Your task to perform on an android device: turn on airplane mode Image 0: 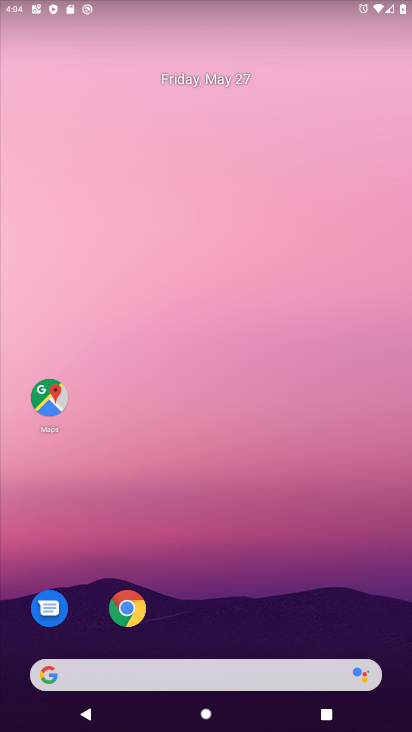
Step 0: press home button
Your task to perform on an android device: turn on airplane mode Image 1: 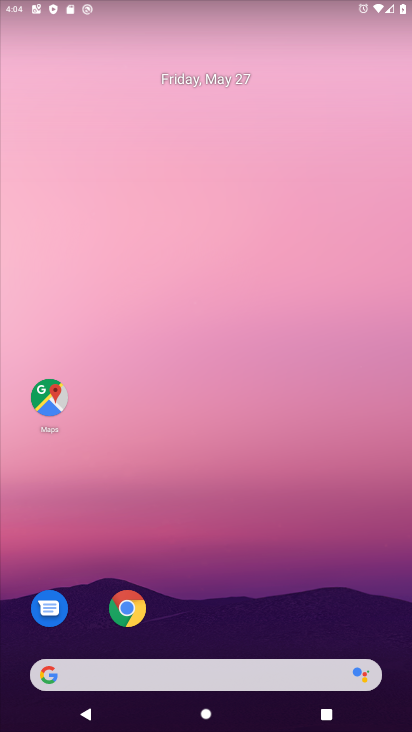
Step 1: drag from (216, 646) to (220, 242)
Your task to perform on an android device: turn on airplane mode Image 2: 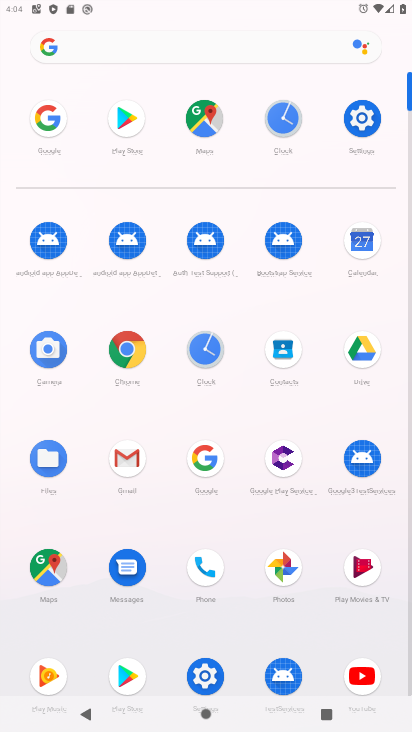
Step 2: click (359, 130)
Your task to perform on an android device: turn on airplane mode Image 3: 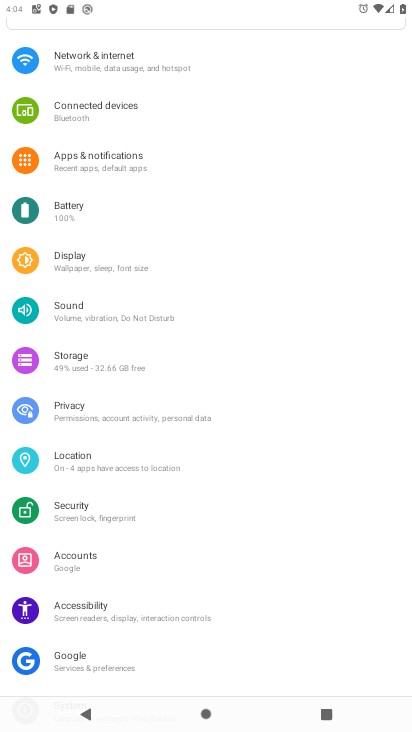
Step 3: click (129, 57)
Your task to perform on an android device: turn on airplane mode Image 4: 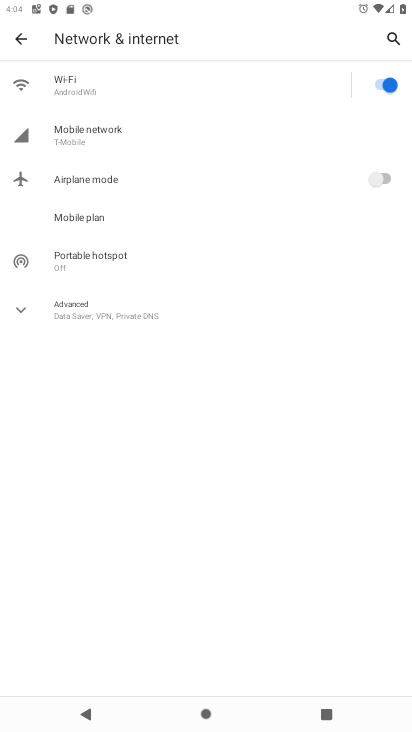
Step 4: click (393, 174)
Your task to perform on an android device: turn on airplane mode Image 5: 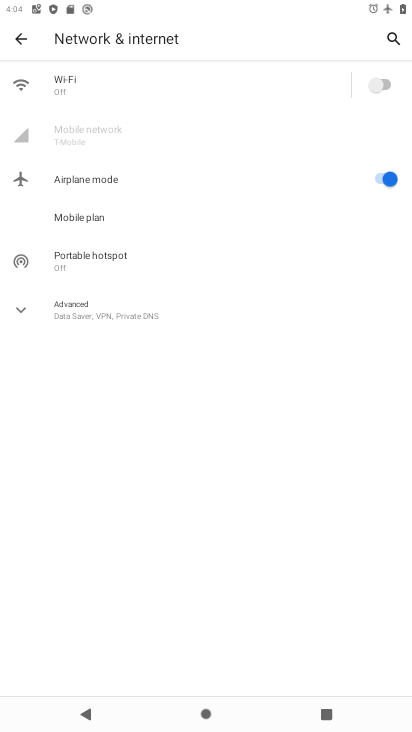
Step 5: task complete